Your task to perform on an android device: clear history in the chrome app Image 0: 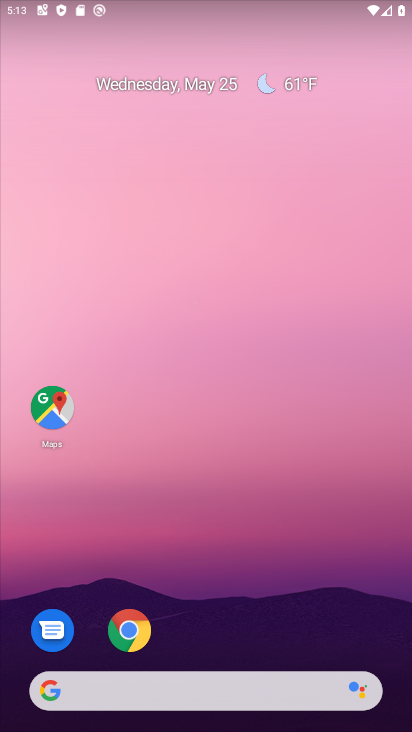
Step 0: click (140, 627)
Your task to perform on an android device: clear history in the chrome app Image 1: 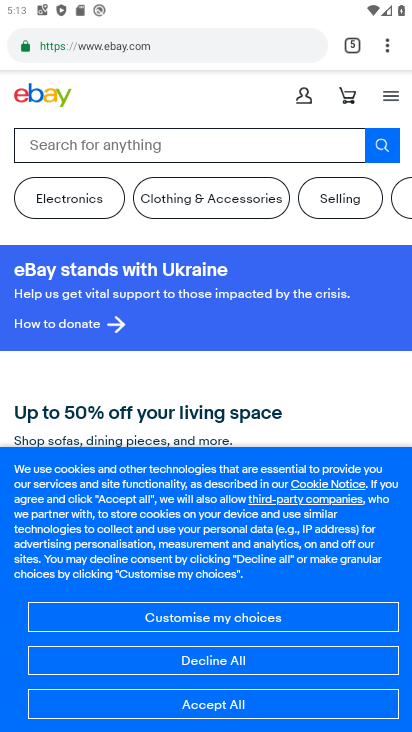
Step 1: drag from (386, 38) to (224, 249)
Your task to perform on an android device: clear history in the chrome app Image 2: 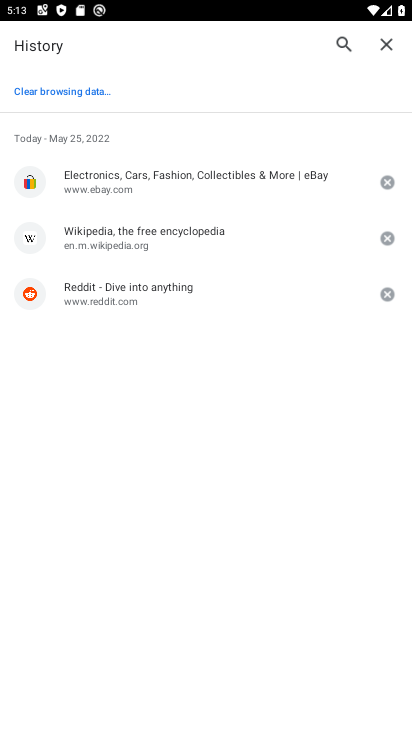
Step 2: click (68, 86)
Your task to perform on an android device: clear history in the chrome app Image 3: 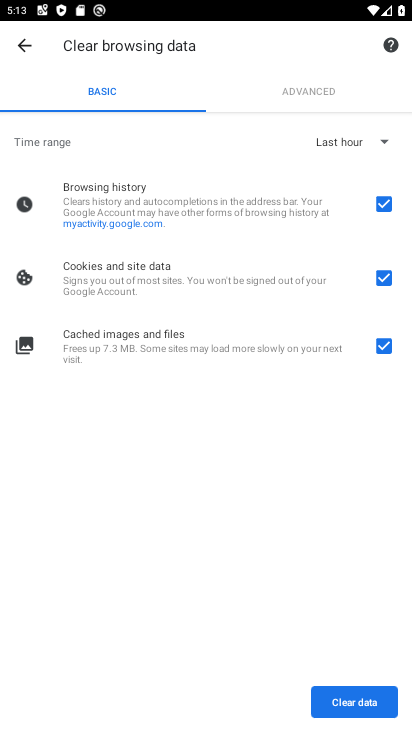
Step 3: click (389, 714)
Your task to perform on an android device: clear history in the chrome app Image 4: 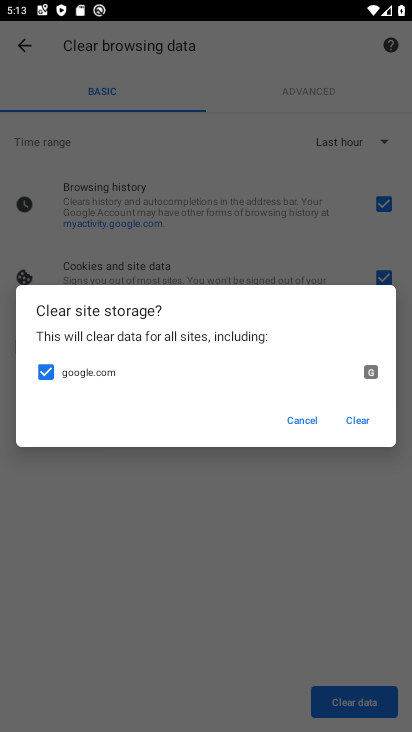
Step 4: click (341, 417)
Your task to perform on an android device: clear history in the chrome app Image 5: 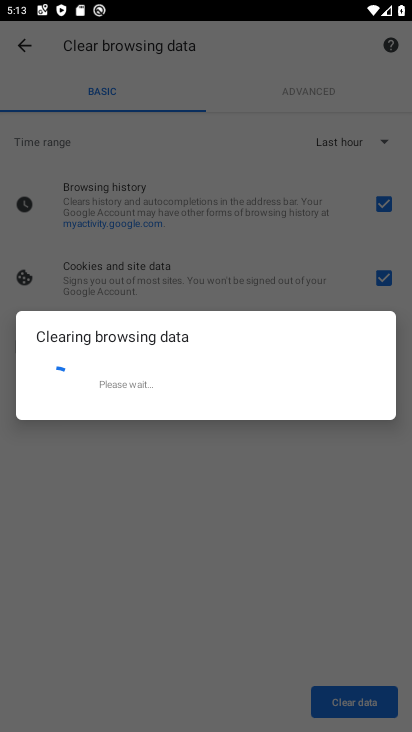
Step 5: task complete